Your task to perform on an android device: Go to sound settings Image 0: 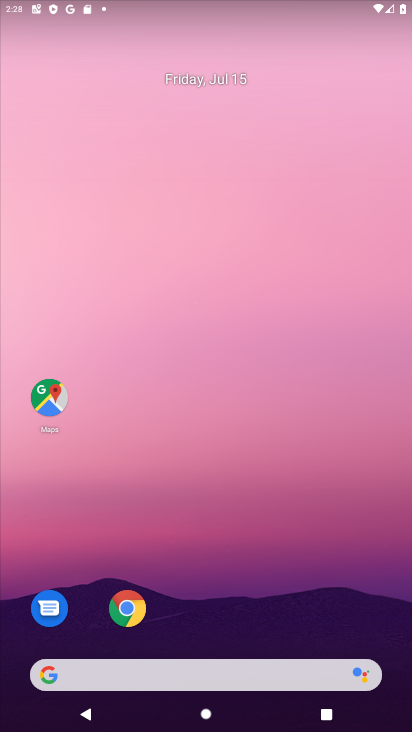
Step 0: drag from (252, 682) to (204, 223)
Your task to perform on an android device: Go to sound settings Image 1: 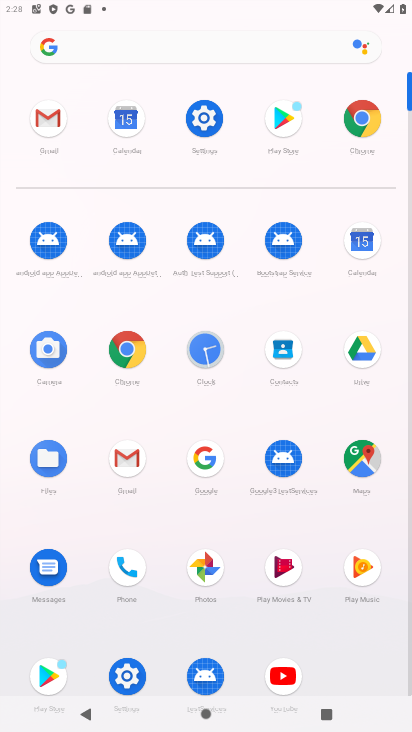
Step 1: click (218, 127)
Your task to perform on an android device: Go to sound settings Image 2: 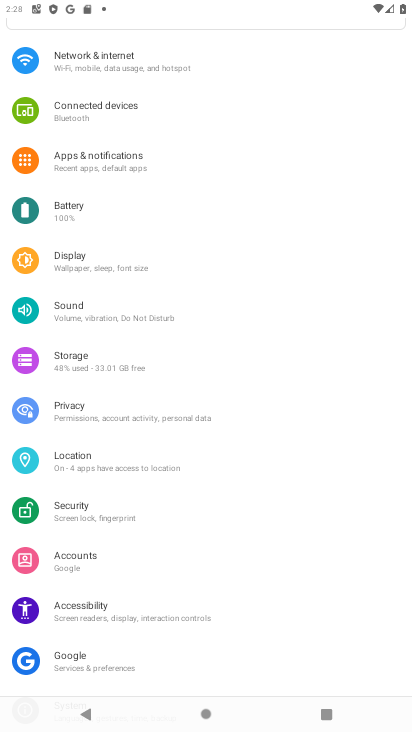
Step 2: click (96, 303)
Your task to perform on an android device: Go to sound settings Image 3: 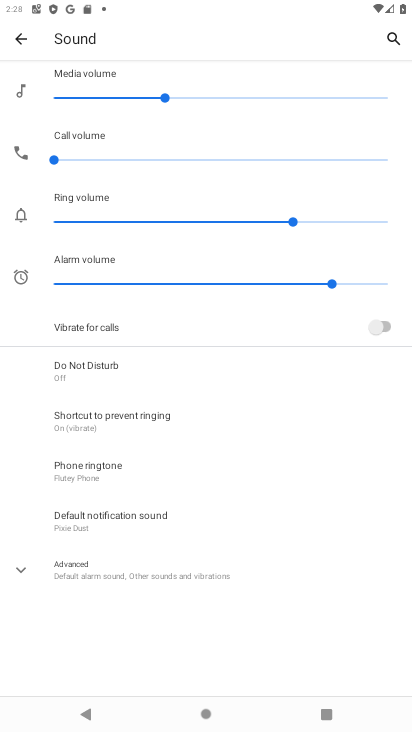
Step 3: task complete